Your task to perform on an android device: Open location settings Image 0: 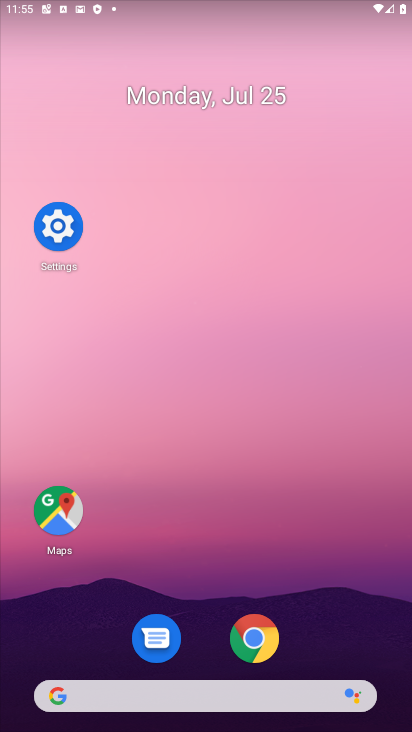
Step 0: click (55, 226)
Your task to perform on an android device: Open location settings Image 1: 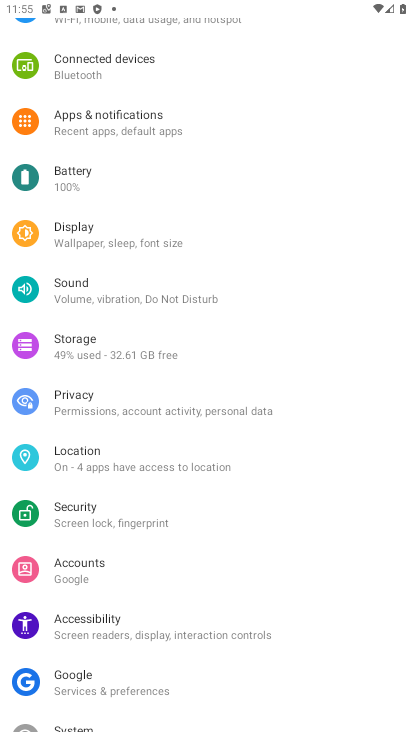
Step 1: click (176, 458)
Your task to perform on an android device: Open location settings Image 2: 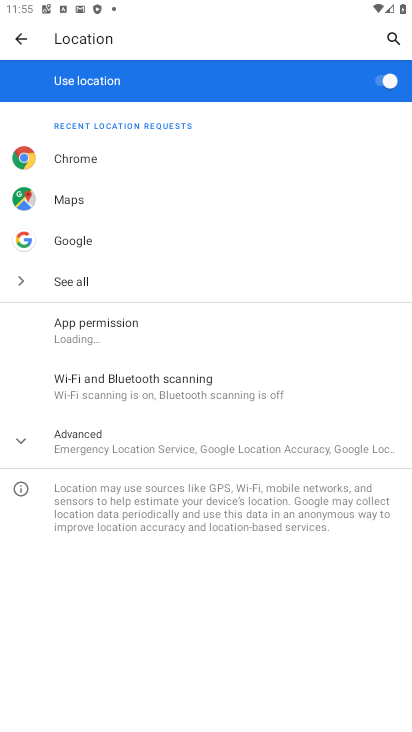
Step 2: task complete